Your task to perform on an android device: open app "Gmail" (install if not already installed) Image 0: 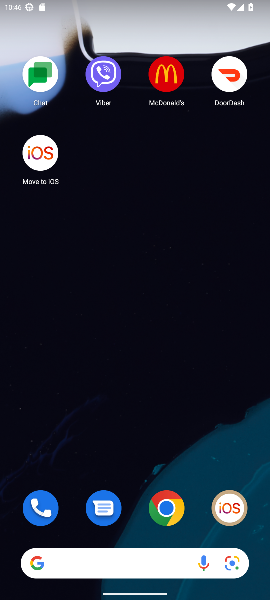
Step 0: drag from (214, 397) to (240, 0)
Your task to perform on an android device: open app "Gmail" (install if not already installed) Image 1: 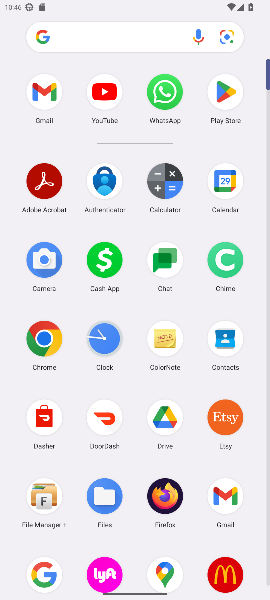
Step 1: click (231, 99)
Your task to perform on an android device: open app "Gmail" (install if not already installed) Image 2: 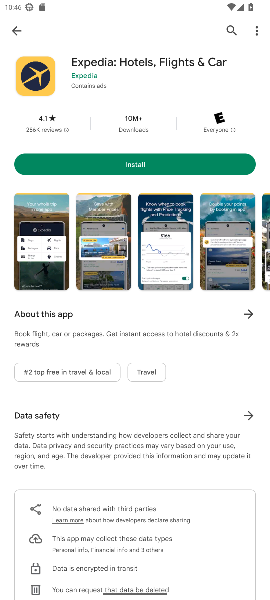
Step 2: click (231, 28)
Your task to perform on an android device: open app "Gmail" (install if not already installed) Image 3: 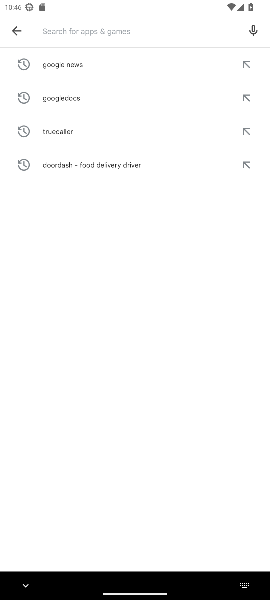
Step 3: type "gmail"
Your task to perform on an android device: open app "Gmail" (install if not already installed) Image 4: 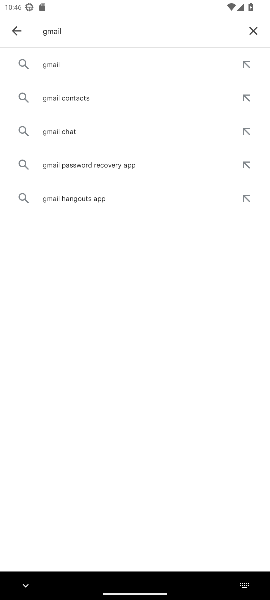
Step 4: click (55, 57)
Your task to perform on an android device: open app "Gmail" (install if not already installed) Image 5: 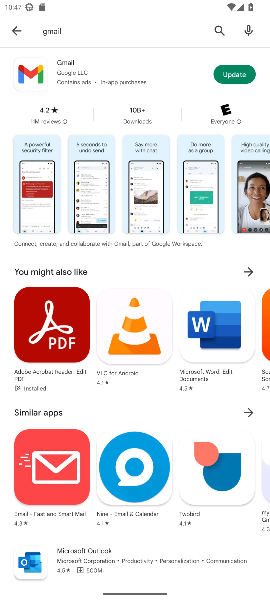
Step 5: task complete